Your task to perform on an android device: What's on my calendar tomorrow? Image 0: 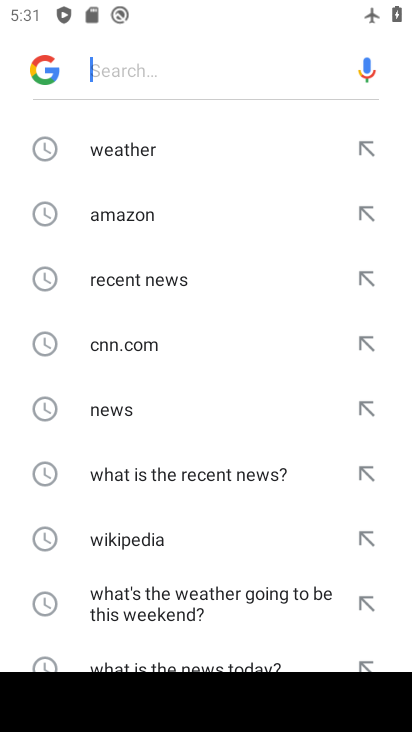
Step 0: press home button
Your task to perform on an android device: What's on my calendar tomorrow? Image 1: 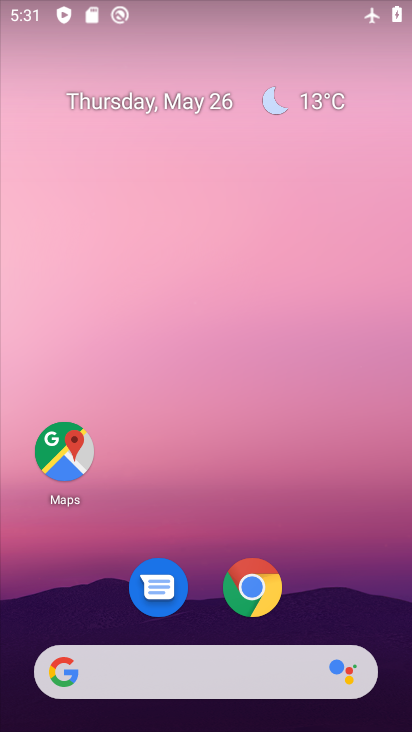
Step 1: drag from (225, 728) to (226, 64)
Your task to perform on an android device: What's on my calendar tomorrow? Image 2: 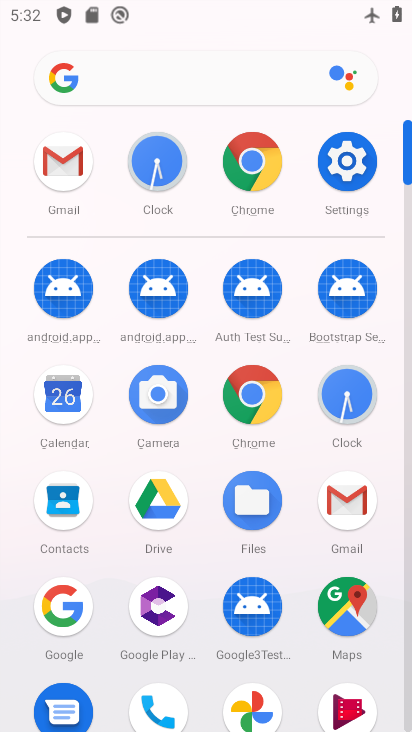
Step 2: click (59, 400)
Your task to perform on an android device: What's on my calendar tomorrow? Image 3: 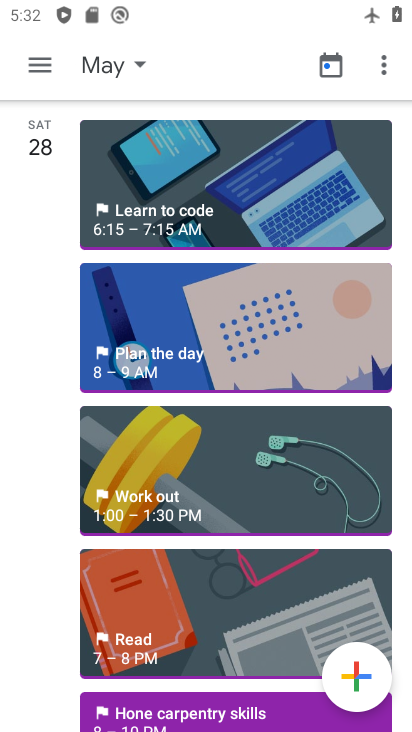
Step 3: click (114, 66)
Your task to perform on an android device: What's on my calendar tomorrow? Image 4: 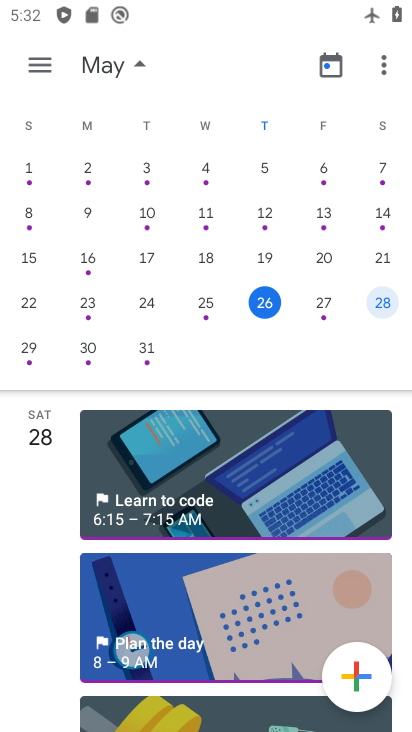
Step 4: click (320, 297)
Your task to perform on an android device: What's on my calendar tomorrow? Image 5: 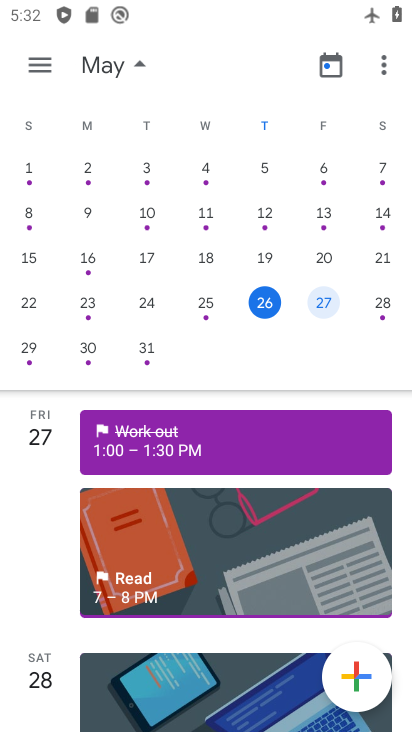
Step 5: click (143, 59)
Your task to perform on an android device: What's on my calendar tomorrow? Image 6: 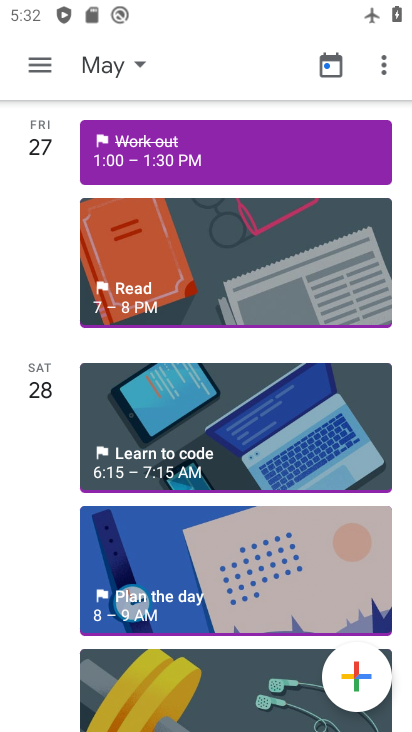
Step 6: task complete